Your task to perform on an android device: open wifi settings Image 0: 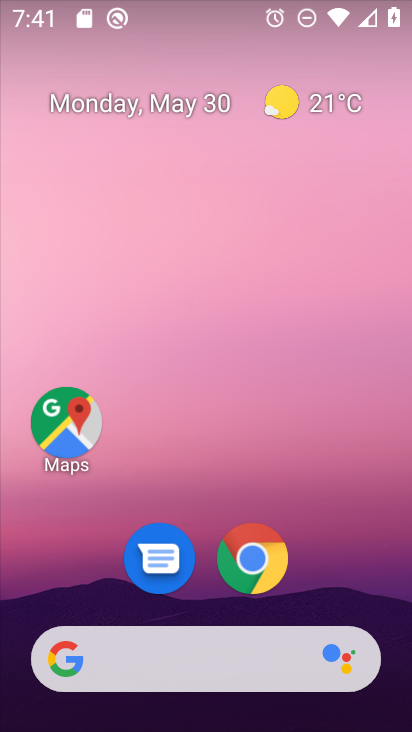
Step 0: drag from (334, 517) to (162, 50)
Your task to perform on an android device: open wifi settings Image 1: 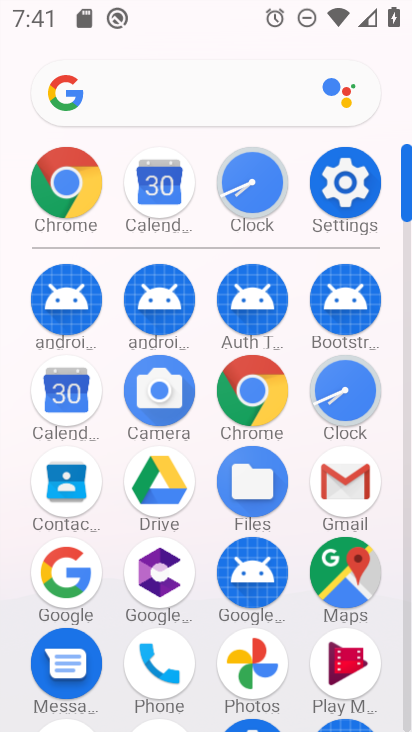
Step 1: click (350, 178)
Your task to perform on an android device: open wifi settings Image 2: 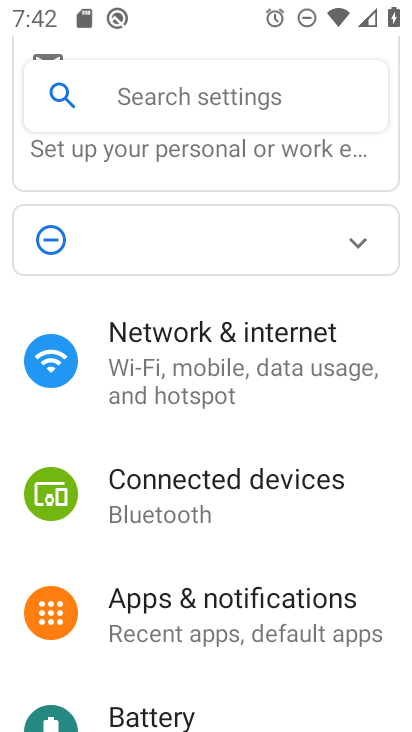
Step 2: click (195, 365)
Your task to perform on an android device: open wifi settings Image 3: 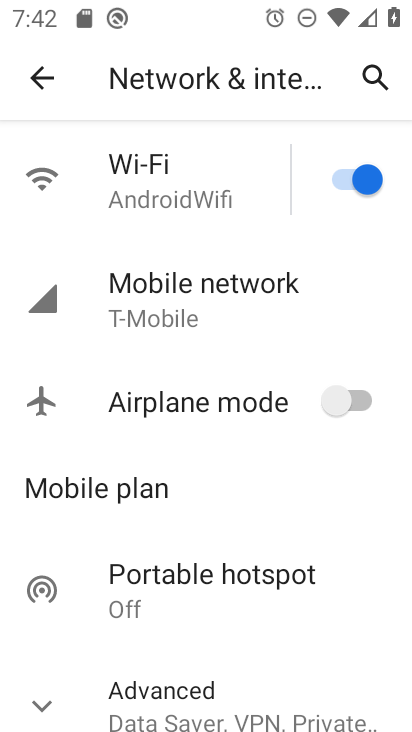
Step 3: click (162, 172)
Your task to perform on an android device: open wifi settings Image 4: 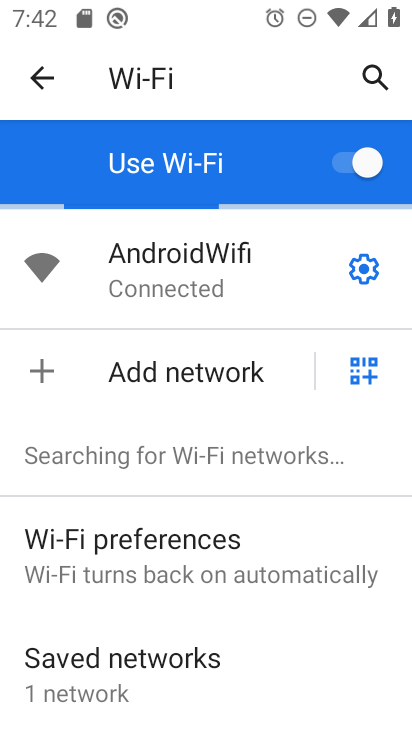
Step 4: task complete